Your task to perform on an android device: open a bookmark in the chrome app Image 0: 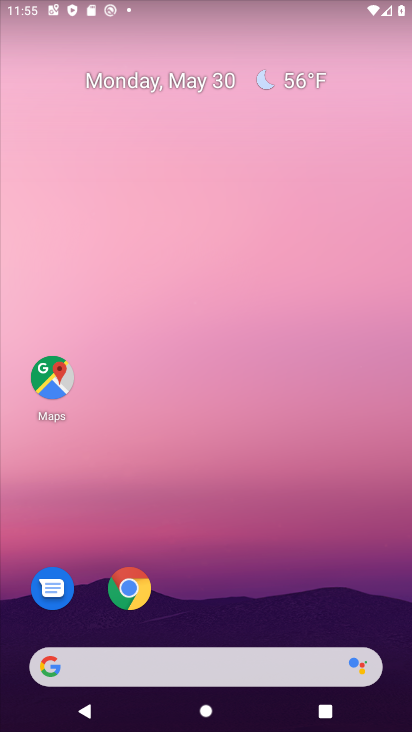
Step 0: click (136, 606)
Your task to perform on an android device: open a bookmark in the chrome app Image 1: 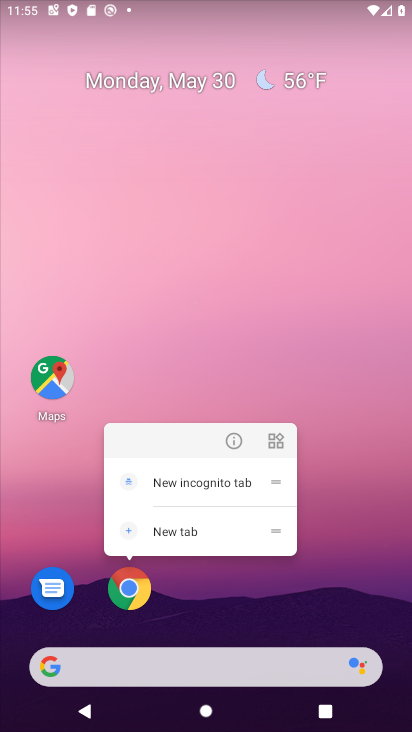
Step 1: click (137, 587)
Your task to perform on an android device: open a bookmark in the chrome app Image 2: 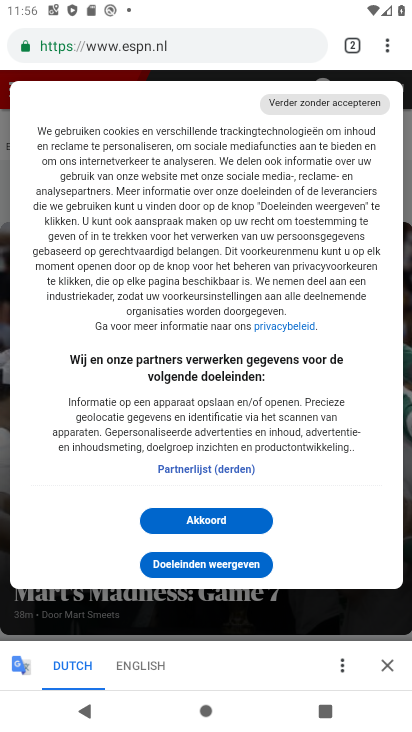
Step 2: click (389, 47)
Your task to perform on an android device: open a bookmark in the chrome app Image 3: 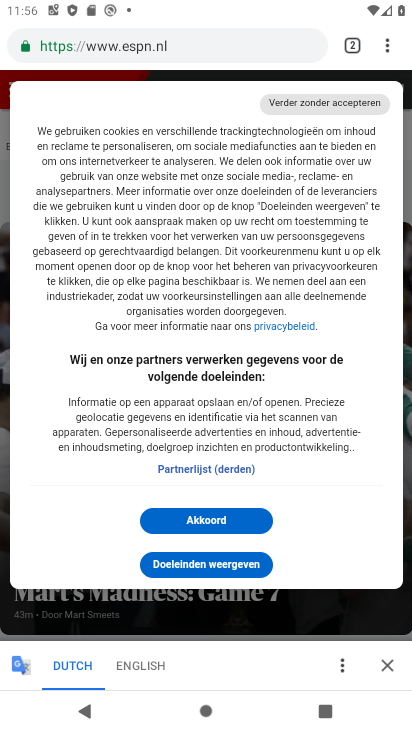
Step 3: click (389, 50)
Your task to perform on an android device: open a bookmark in the chrome app Image 4: 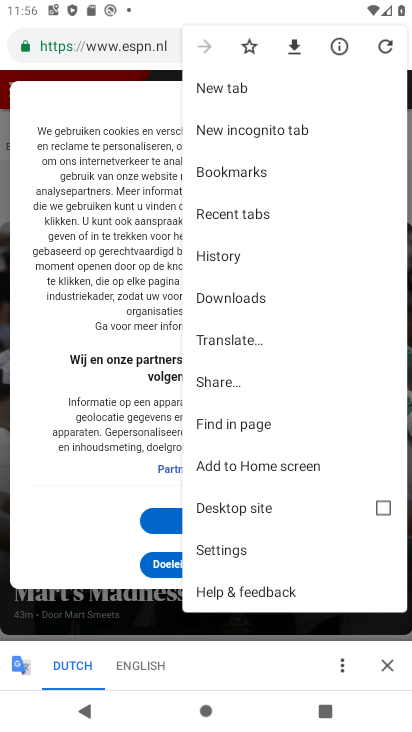
Step 4: click (252, 172)
Your task to perform on an android device: open a bookmark in the chrome app Image 5: 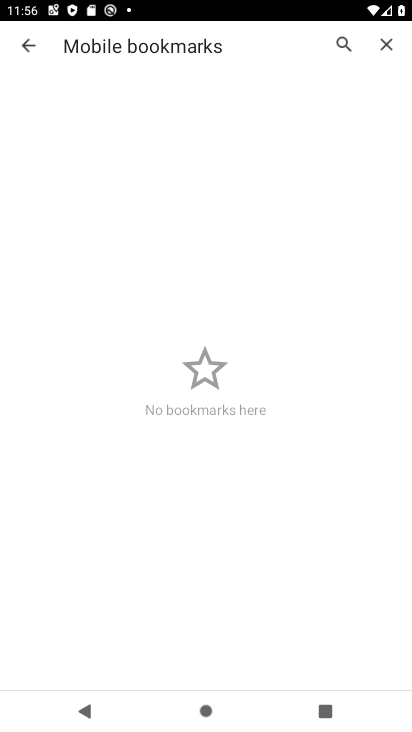
Step 5: task complete